Your task to perform on an android device: Go to Amazon Image 0: 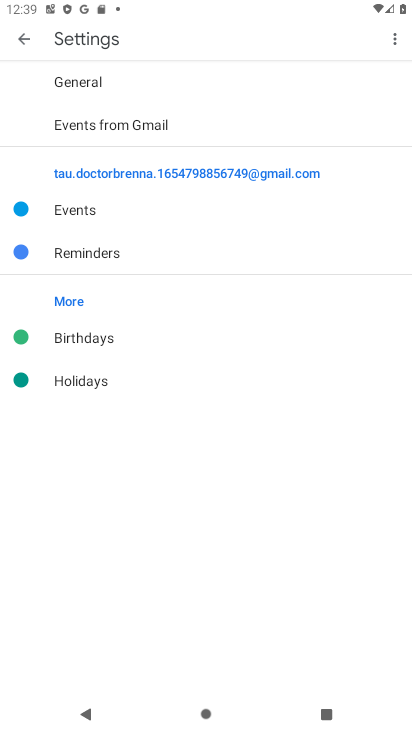
Step 0: press home button
Your task to perform on an android device: Go to Amazon Image 1: 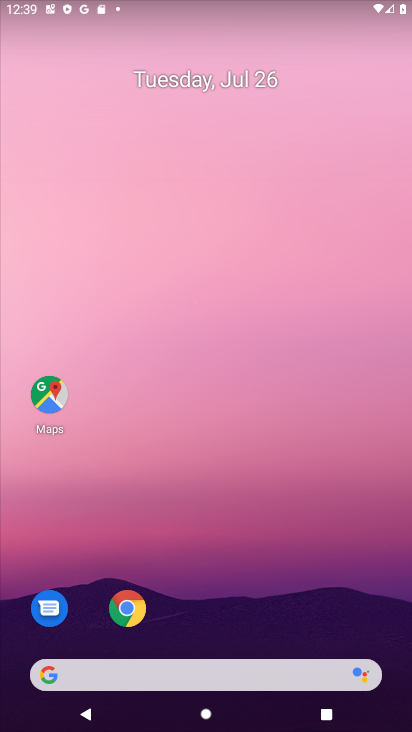
Step 1: click (128, 604)
Your task to perform on an android device: Go to Amazon Image 2: 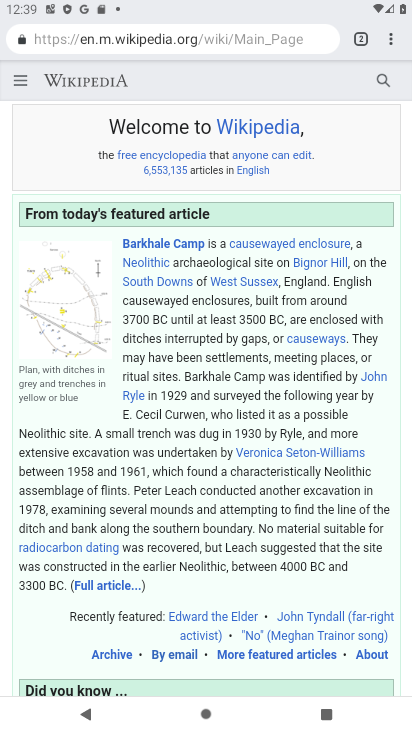
Step 2: click (358, 47)
Your task to perform on an android device: Go to Amazon Image 3: 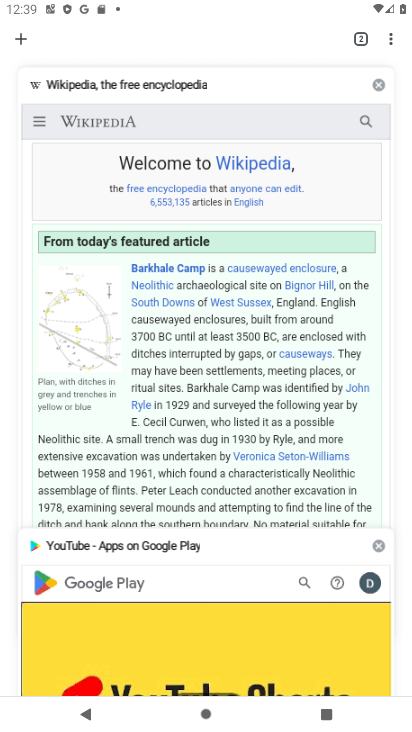
Step 3: click (8, 50)
Your task to perform on an android device: Go to Amazon Image 4: 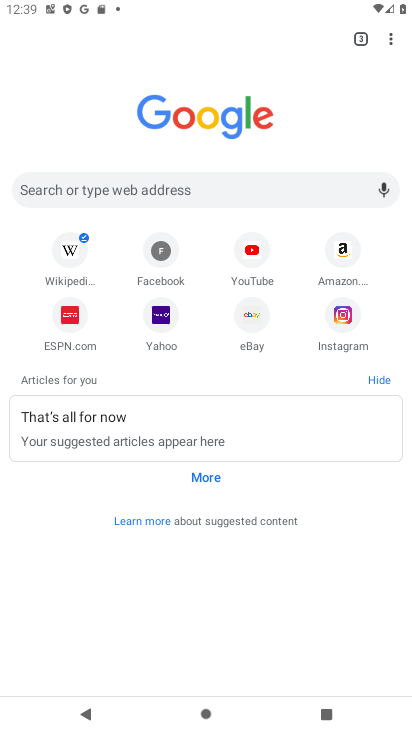
Step 4: click (338, 256)
Your task to perform on an android device: Go to Amazon Image 5: 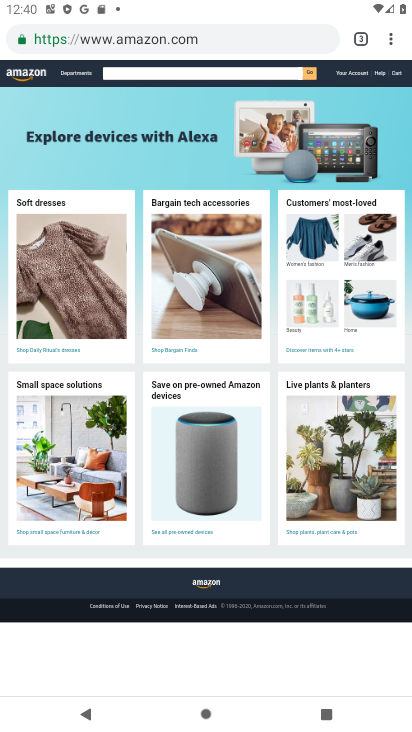
Step 5: task complete